Your task to perform on an android device: Open ESPN.com Image 0: 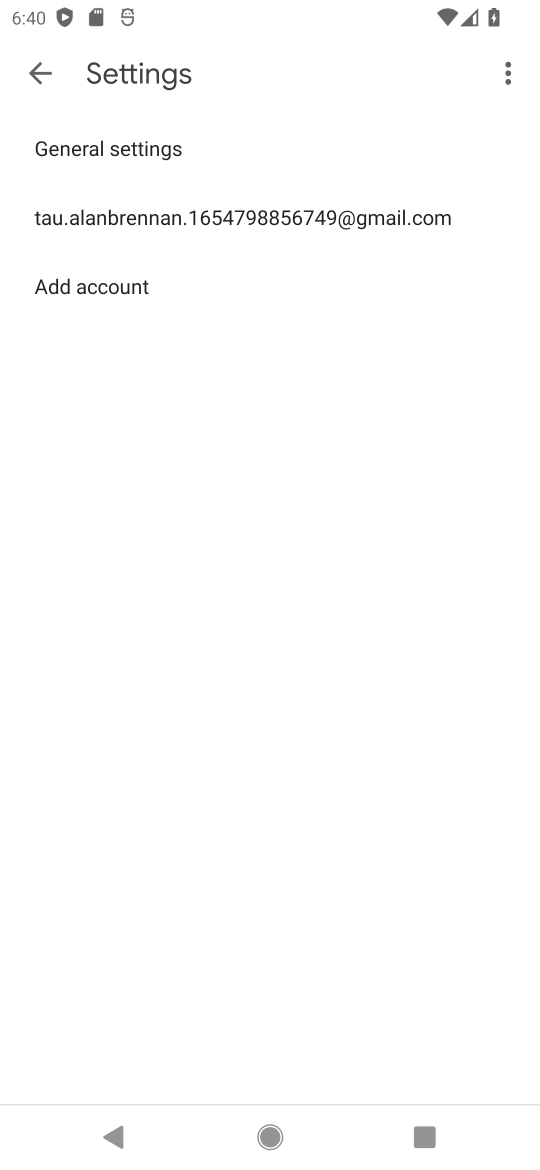
Step 0: press home button
Your task to perform on an android device: Open ESPN.com Image 1: 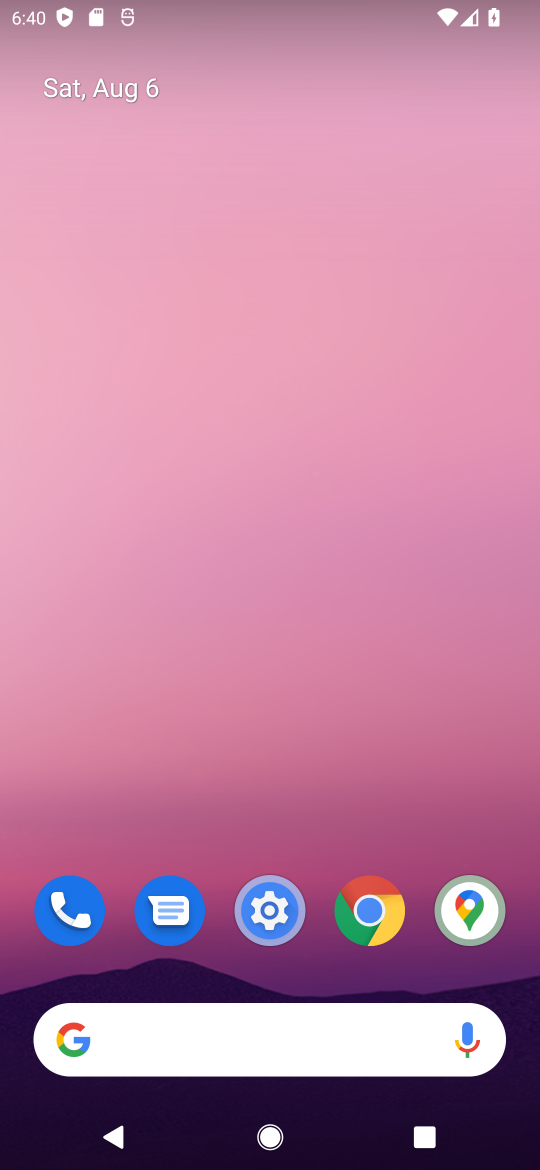
Step 1: click (384, 918)
Your task to perform on an android device: Open ESPN.com Image 2: 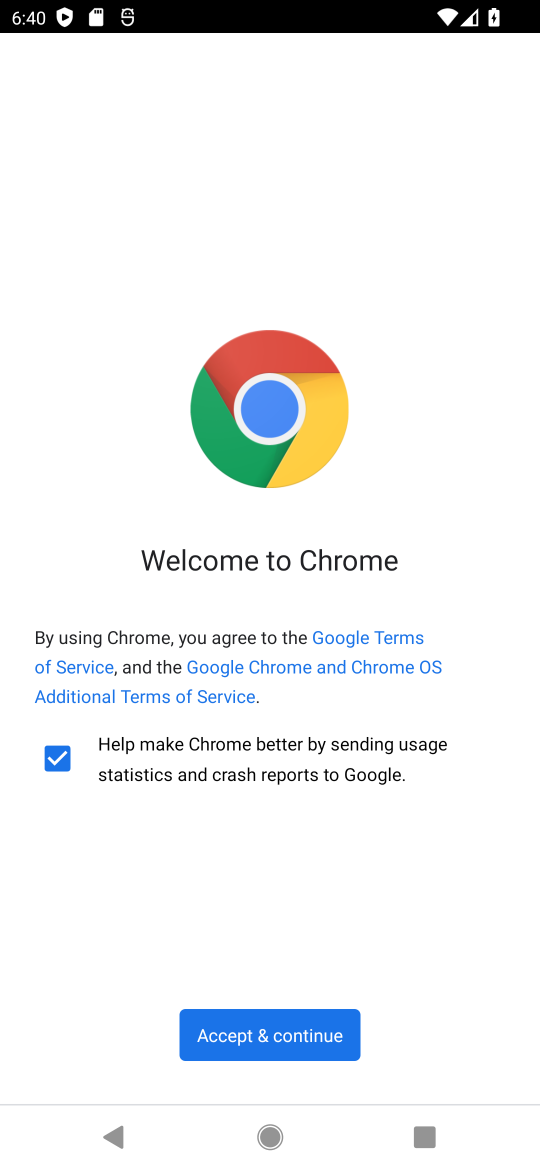
Step 2: click (289, 1052)
Your task to perform on an android device: Open ESPN.com Image 3: 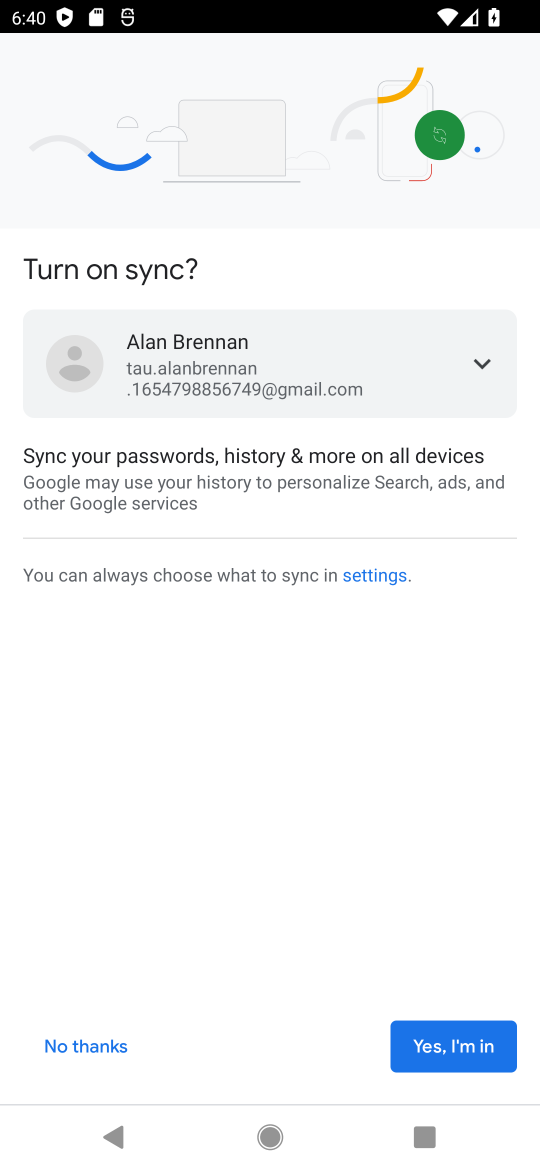
Step 3: click (459, 1043)
Your task to perform on an android device: Open ESPN.com Image 4: 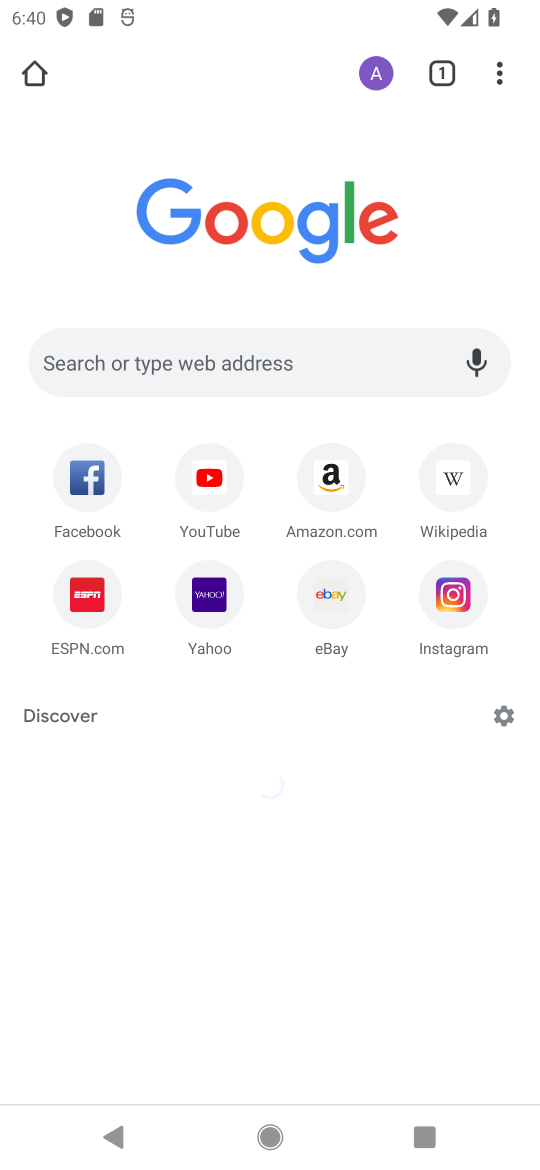
Step 4: click (211, 350)
Your task to perform on an android device: Open ESPN.com Image 5: 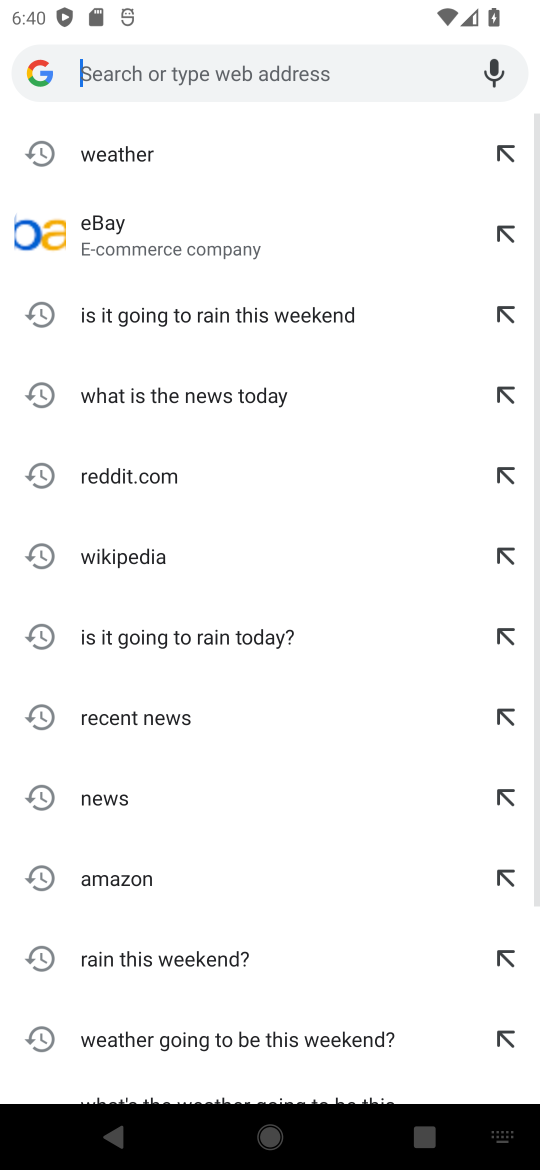
Step 5: type "ESPN.com"
Your task to perform on an android device: Open ESPN.com Image 6: 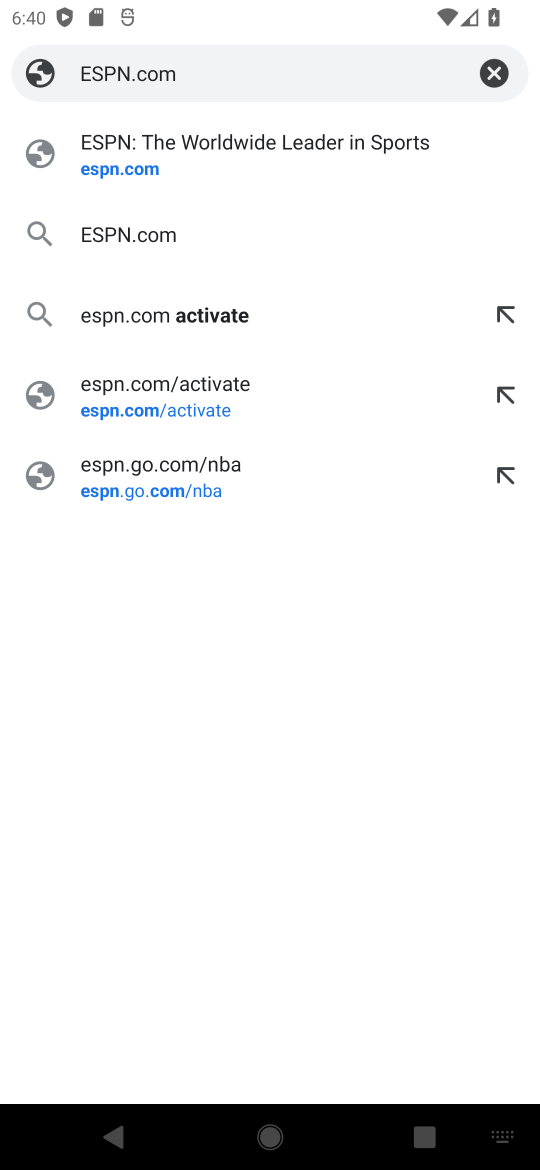
Step 6: click (100, 228)
Your task to perform on an android device: Open ESPN.com Image 7: 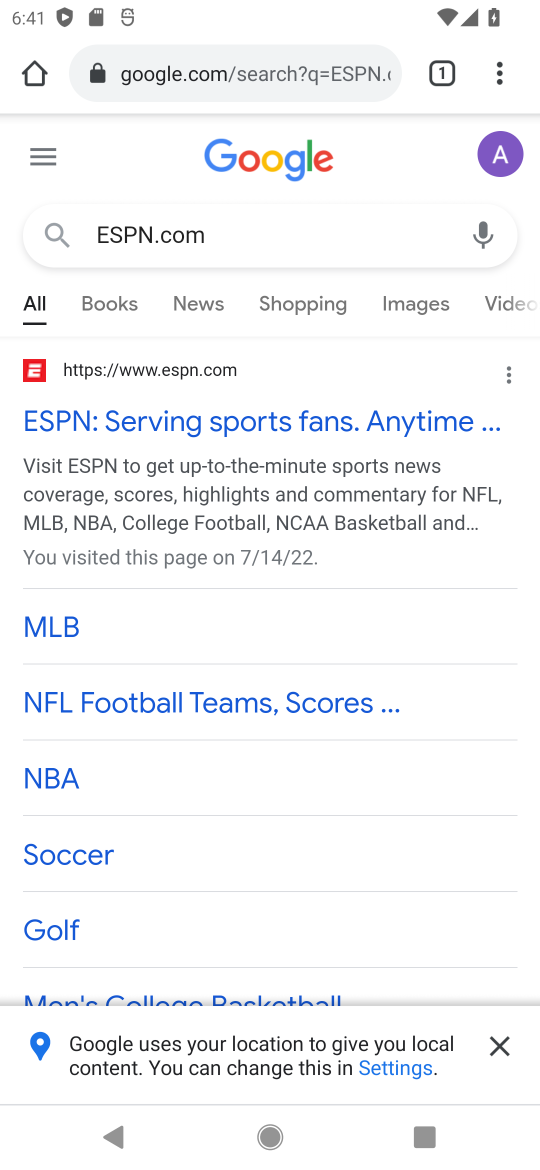
Step 7: task complete